Your task to perform on an android device: Go to Android settings Image 0: 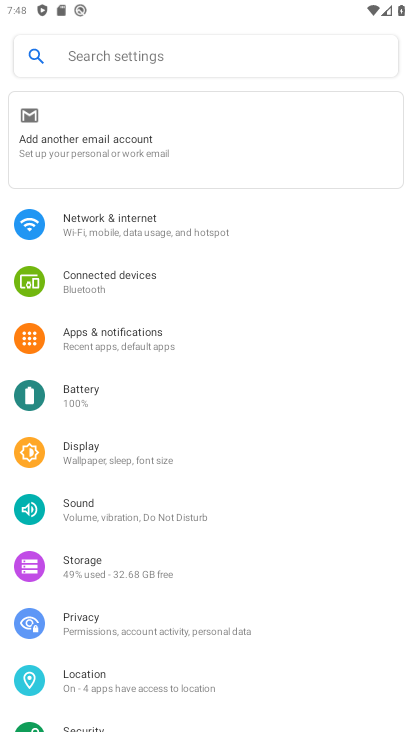
Step 0: drag from (245, 619) to (225, 281)
Your task to perform on an android device: Go to Android settings Image 1: 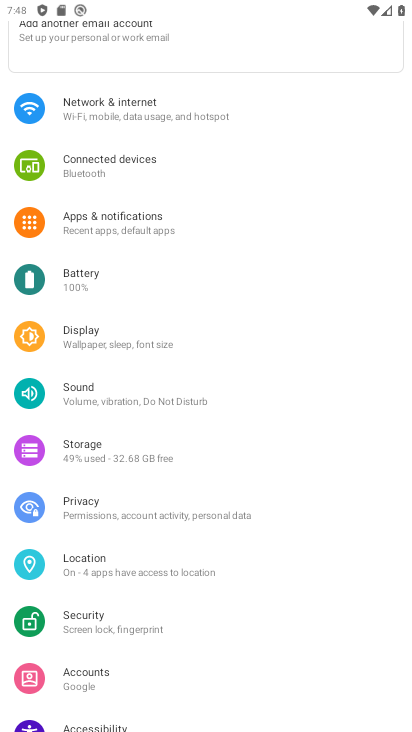
Step 1: drag from (235, 654) to (193, 168)
Your task to perform on an android device: Go to Android settings Image 2: 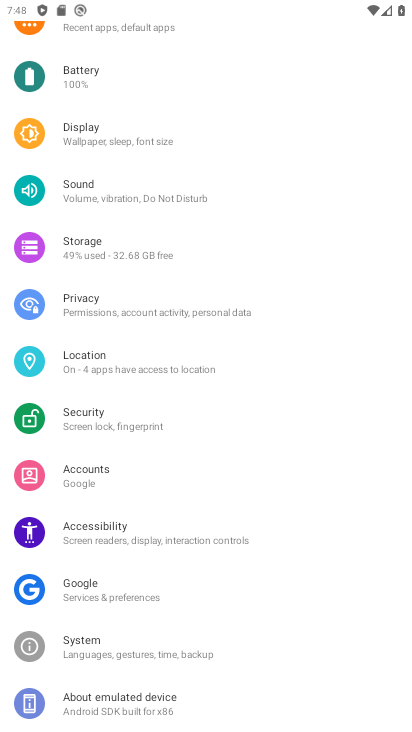
Step 2: click (137, 650)
Your task to perform on an android device: Go to Android settings Image 3: 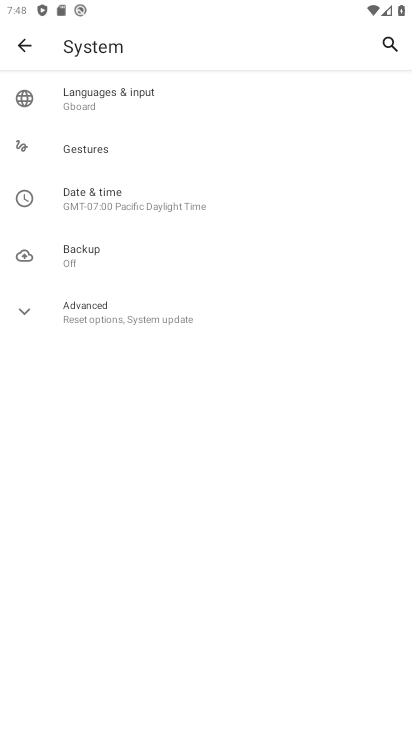
Step 3: task complete